Your task to perform on an android device: Go to calendar. Show me events next week Image 0: 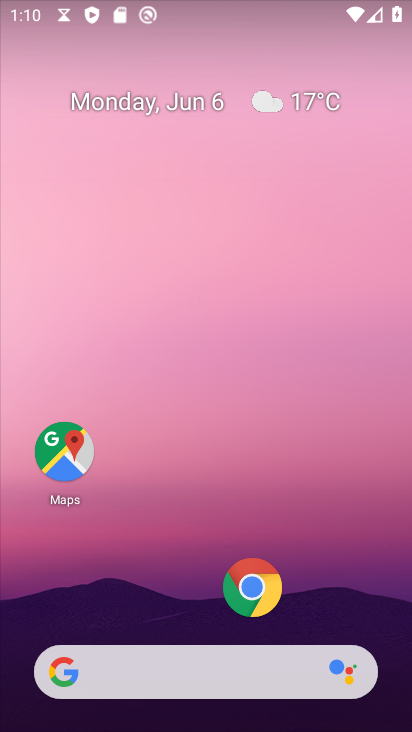
Step 0: drag from (175, 617) to (261, 0)
Your task to perform on an android device: Go to calendar. Show me events next week Image 1: 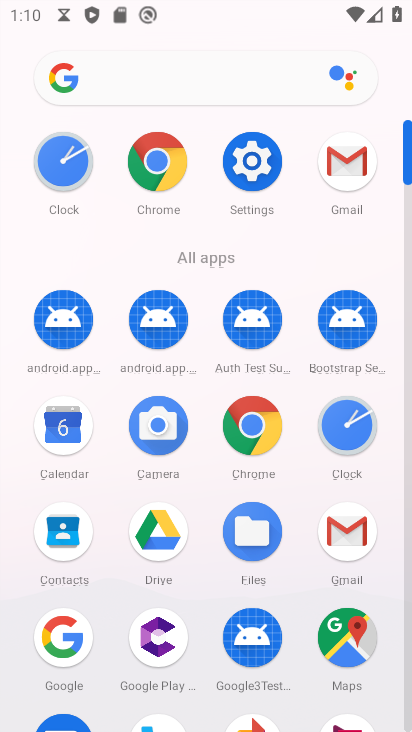
Step 1: click (74, 442)
Your task to perform on an android device: Go to calendar. Show me events next week Image 2: 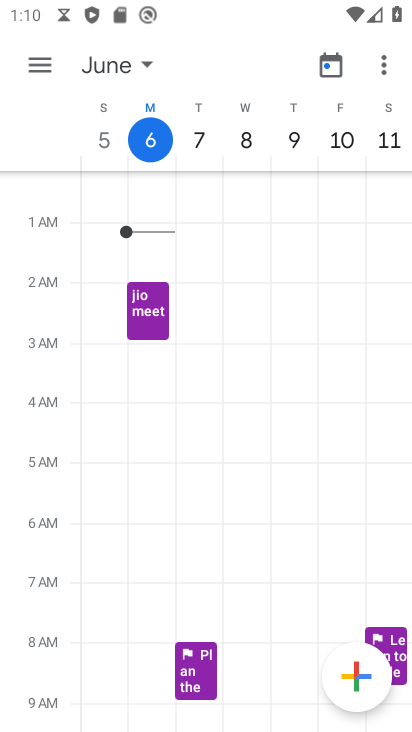
Step 2: task complete